Your task to perform on an android device: Search for Mexican restaurants on Maps Image 0: 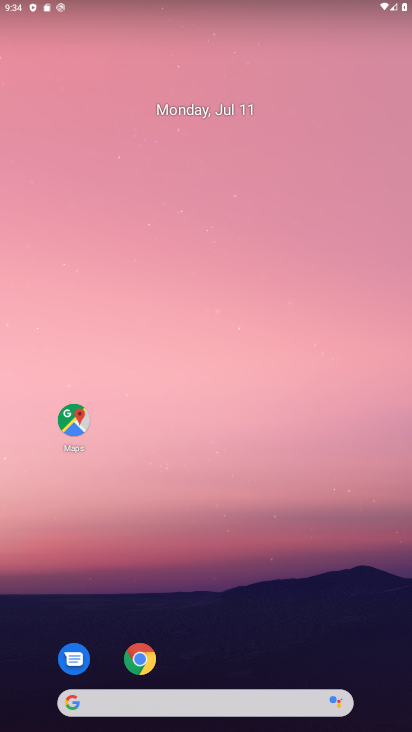
Step 0: drag from (261, 645) to (350, 20)
Your task to perform on an android device: Search for Mexican restaurants on Maps Image 1: 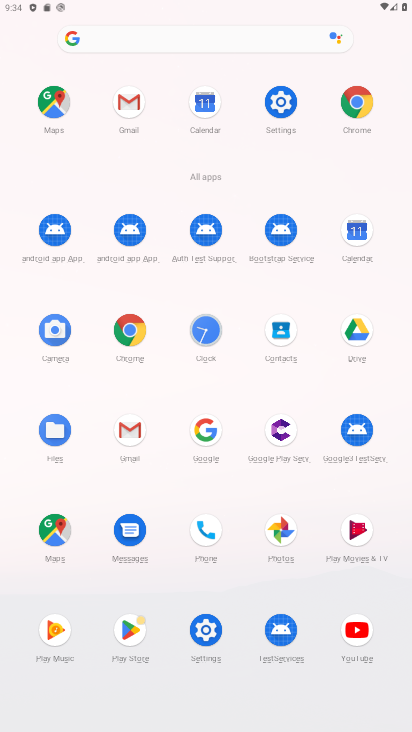
Step 1: click (76, 537)
Your task to perform on an android device: Search for Mexican restaurants on Maps Image 2: 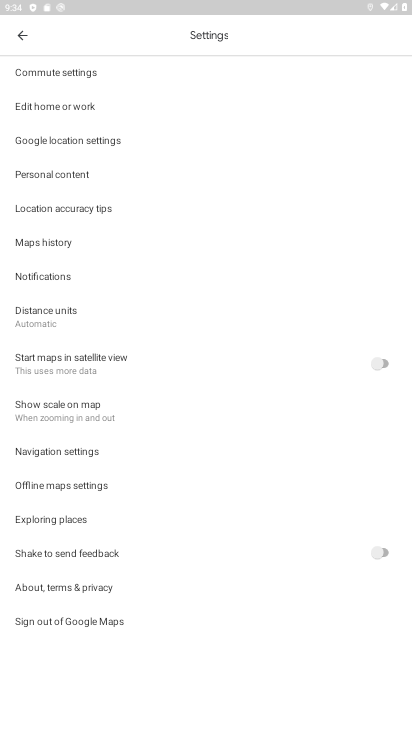
Step 2: click (24, 39)
Your task to perform on an android device: Search for Mexican restaurants on Maps Image 3: 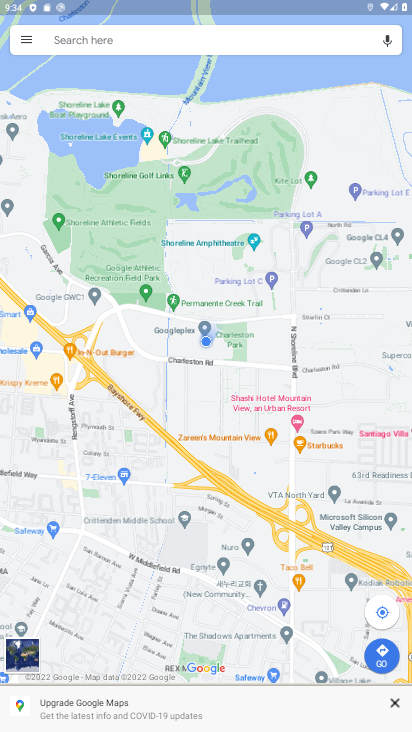
Step 3: click (175, 34)
Your task to perform on an android device: Search for Mexican restaurants on Maps Image 4: 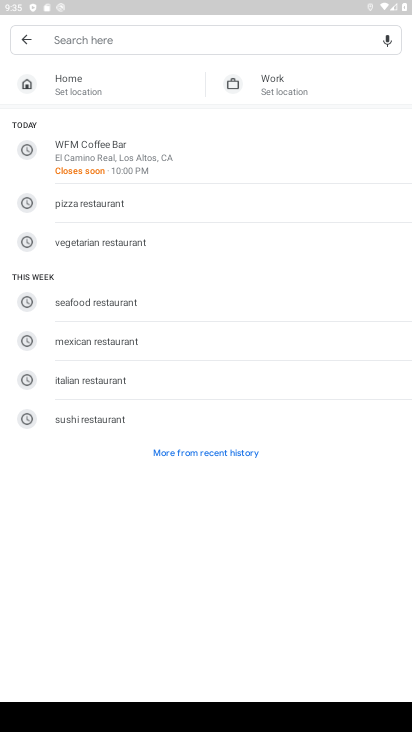
Step 4: type "mexican resturents"
Your task to perform on an android device: Search for Mexican restaurants on Maps Image 5: 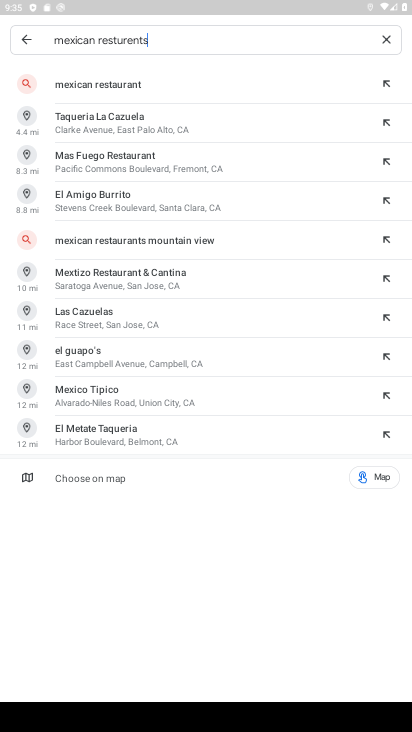
Step 5: click (140, 82)
Your task to perform on an android device: Search for Mexican restaurants on Maps Image 6: 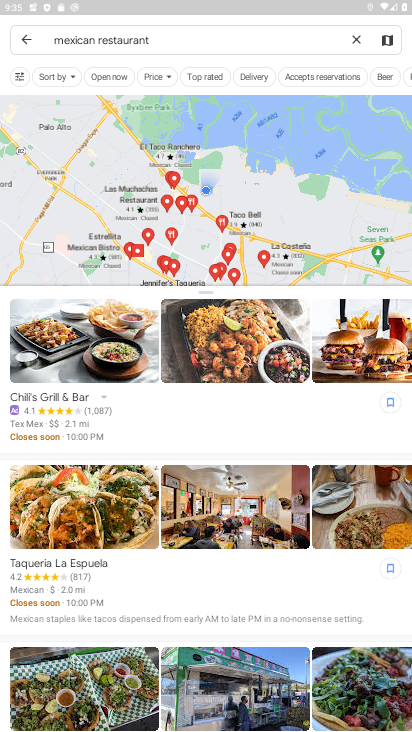
Step 6: task complete